Your task to perform on an android device: Open notification settings Image 0: 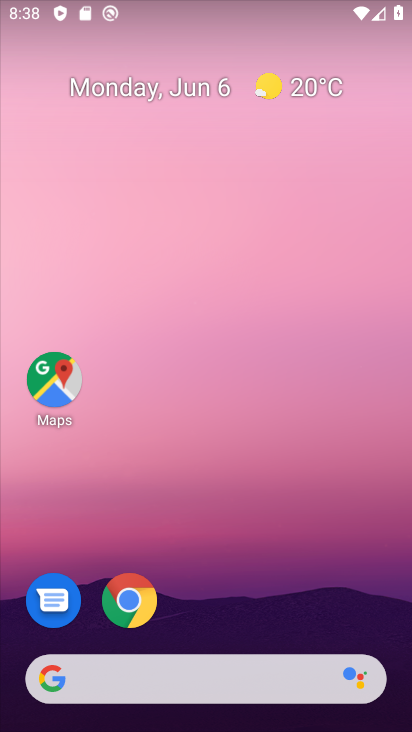
Step 0: drag from (29, 557) to (189, 287)
Your task to perform on an android device: Open notification settings Image 1: 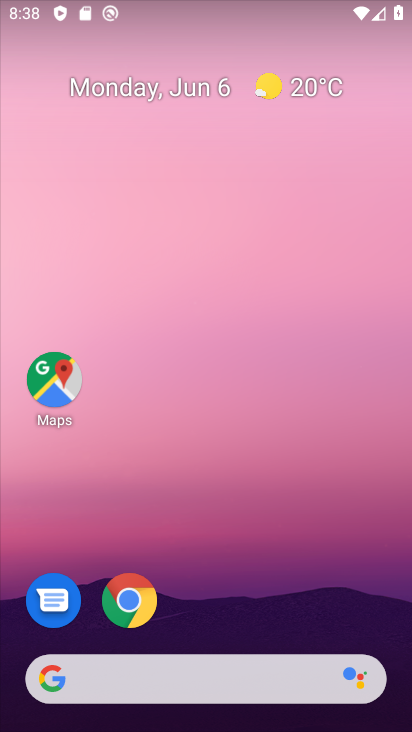
Step 1: drag from (22, 626) to (280, 114)
Your task to perform on an android device: Open notification settings Image 2: 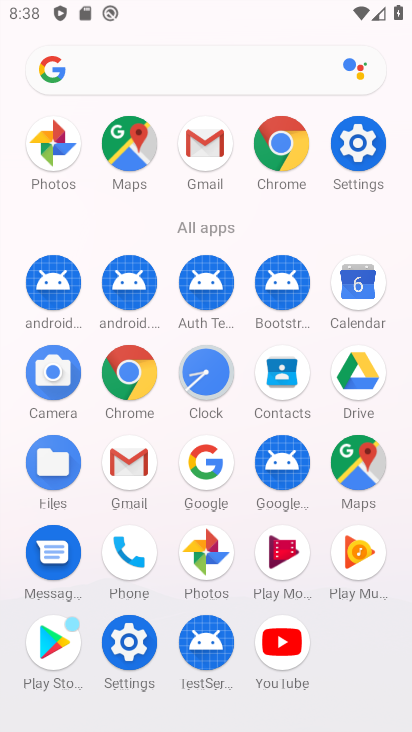
Step 2: click (348, 148)
Your task to perform on an android device: Open notification settings Image 3: 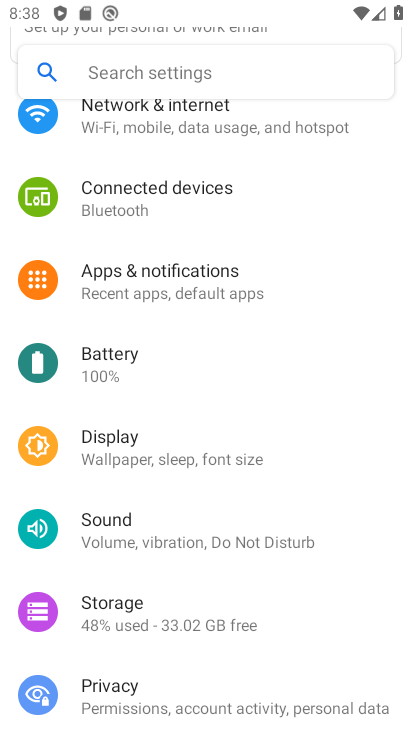
Step 3: click (99, 302)
Your task to perform on an android device: Open notification settings Image 4: 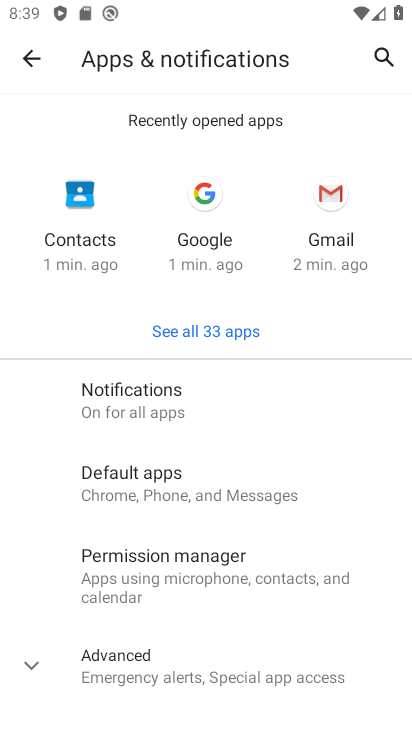
Step 4: click (57, 402)
Your task to perform on an android device: Open notification settings Image 5: 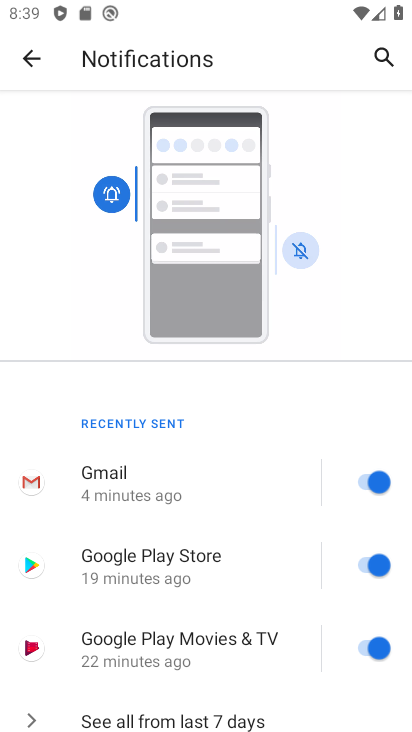
Step 5: task complete